Your task to perform on an android device: open sync settings in chrome Image 0: 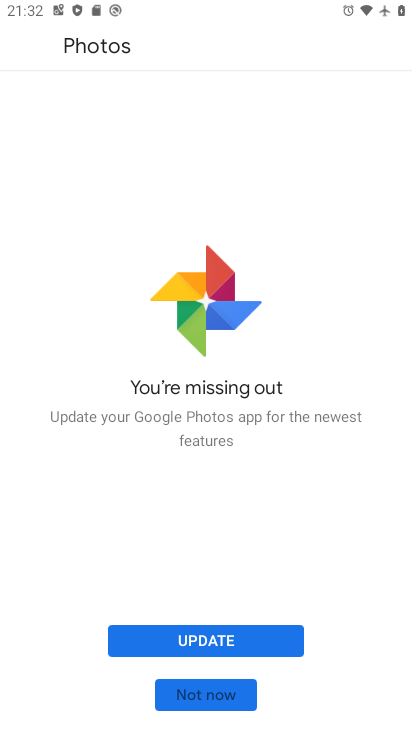
Step 0: press home button
Your task to perform on an android device: open sync settings in chrome Image 1: 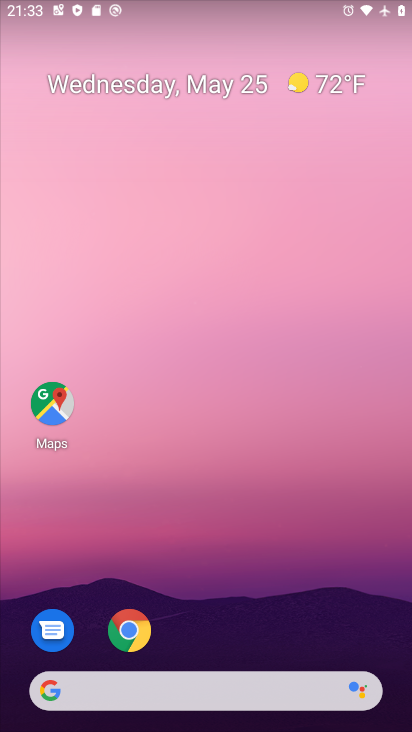
Step 1: click (137, 623)
Your task to perform on an android device: open sync settings in chrome Image 2: 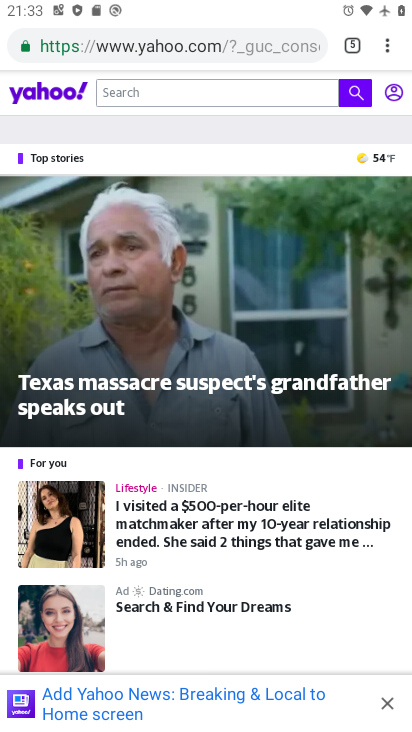
Step 2: click (383, 38)
Your task to perform on an android device: open sync settings in chrome Image 3: 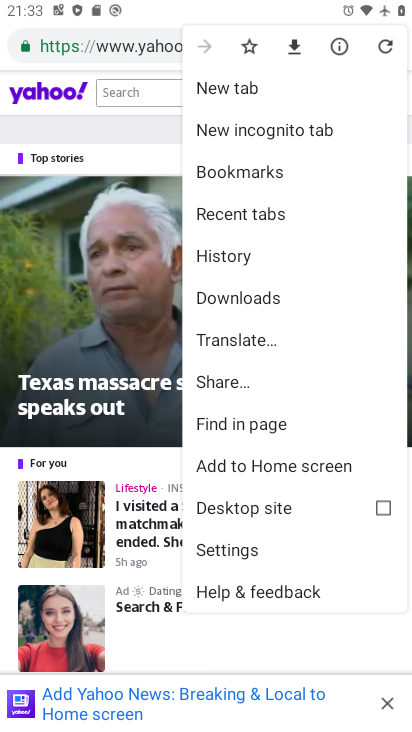
Step 3: click (247, 543)
Your task to perform on an android device: open sync settings in chrome Image 4: 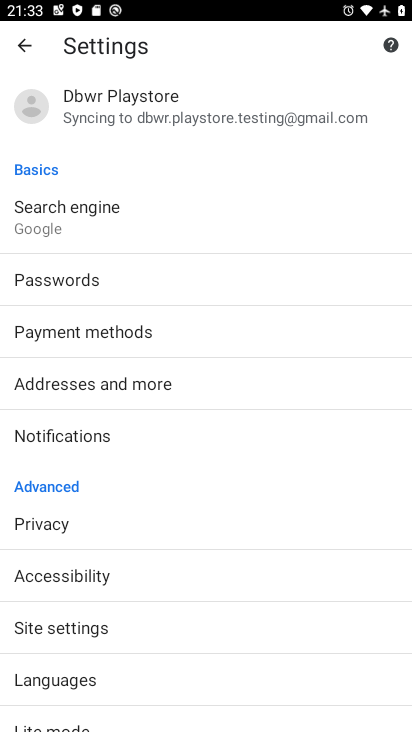
Step 4: drag from (135, 682) to (145, 405)
Your task to perform on an android device: open sync settings in chrome Image 5: 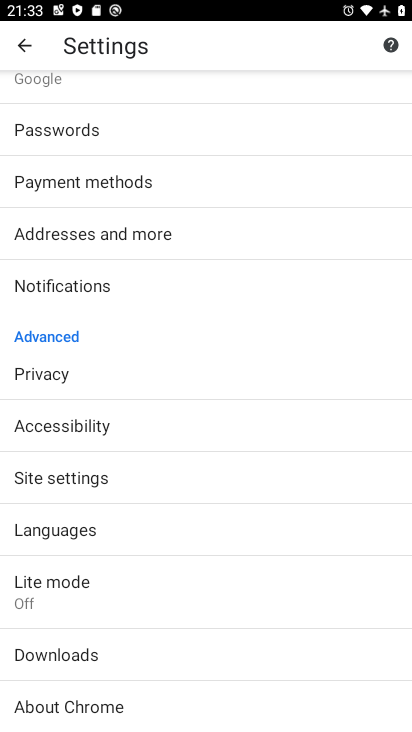
Step 5: drag from (153, 625) to (177, 479)
Your task to perform on an android device: open sync settings in chrome Image 6: 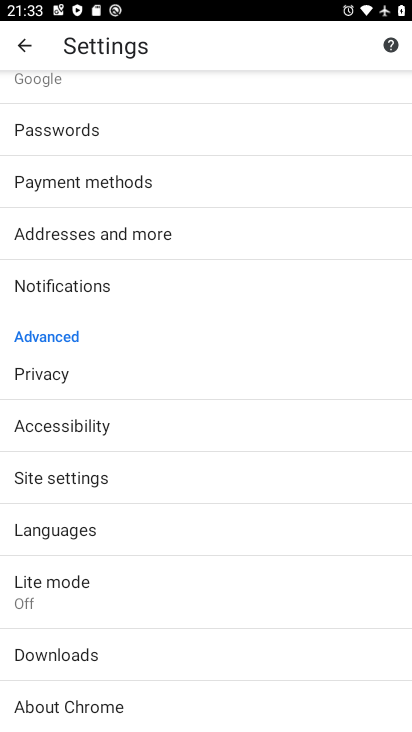
Step 6: drag from (158, 640) to (179, 356)
Your task to perform on an android device: open sync settings in chrome Image 7: 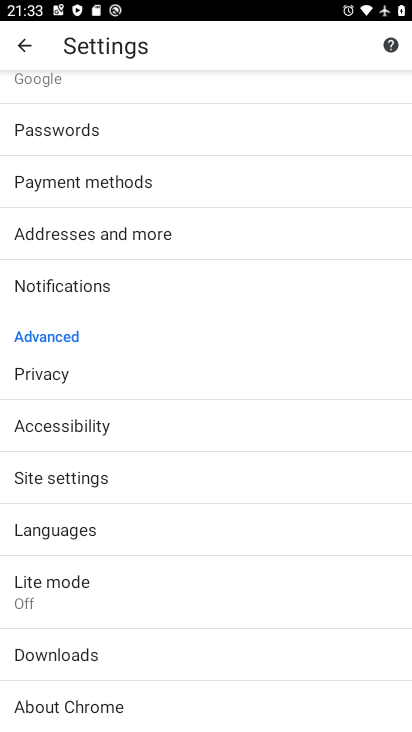
Step 7: drag from (160, 647) to (192, 215)
Your task to perform on an android device: open sync settings in chrome Image 8: 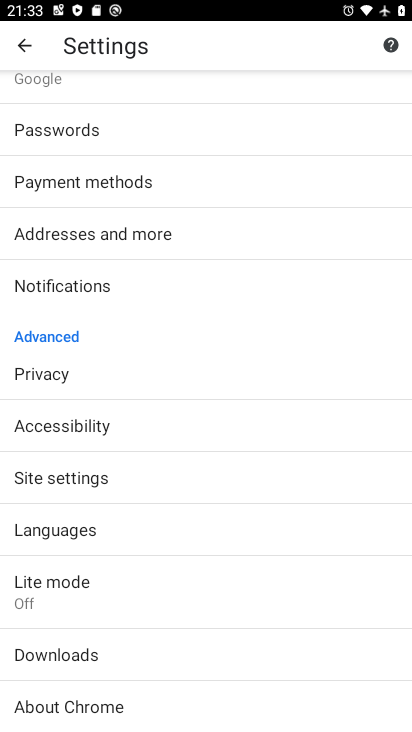
Step 8: drag from (209, 206) to (201, 551)
Your task to perform on an android device: open sync settings in chrome Image 9: 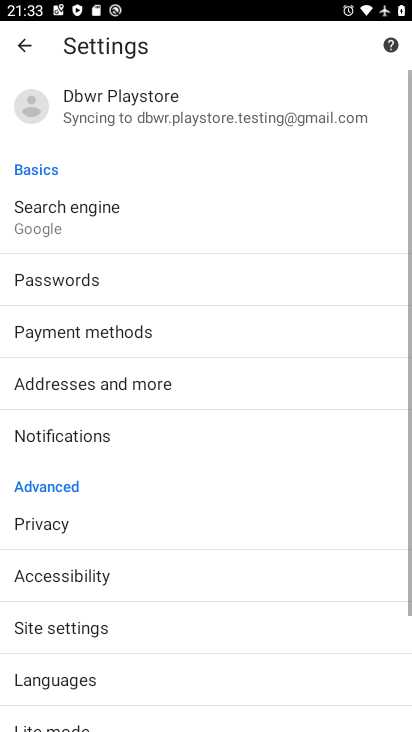
Step 9: drag from (206, 280) to (208, 522)
Your task to perform on an android device: open sync settings in chrome Image 10: 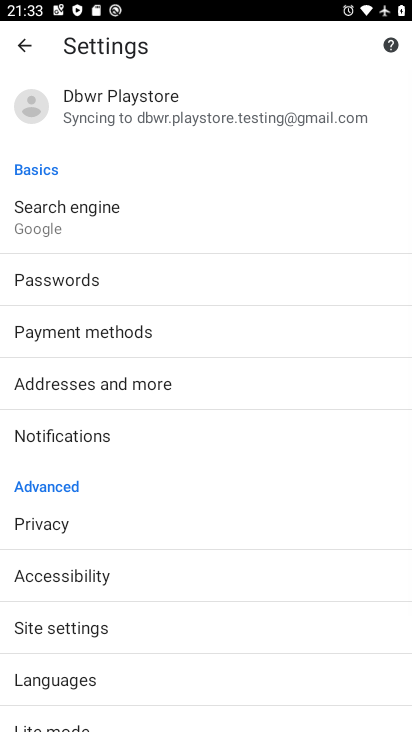
Step 10: click (183, 96)
Your task to perform on an android device: open sync settings in chrome Image 11: 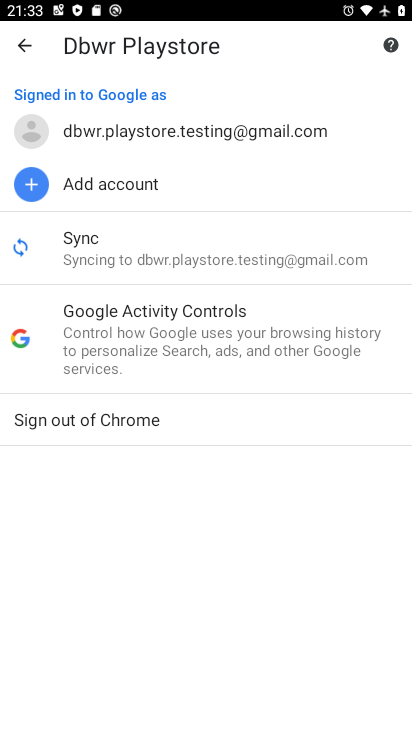
Step 11: click (138, 261)
Your task to perform on an android device: open sync settings in chrome Image 12: 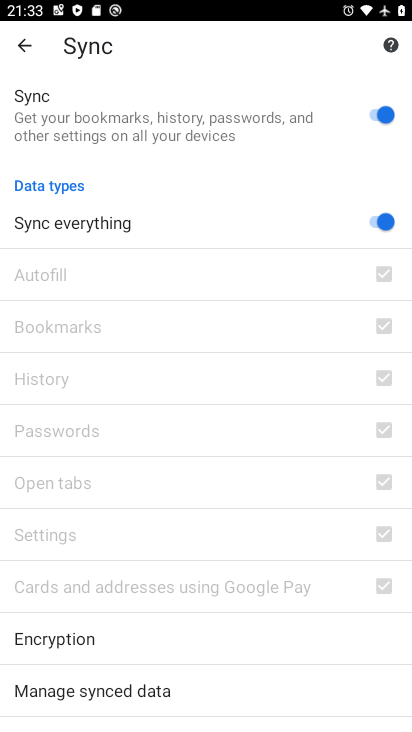
Step 12: task complete